Your task to perform on an android device: Open Google Image 0: 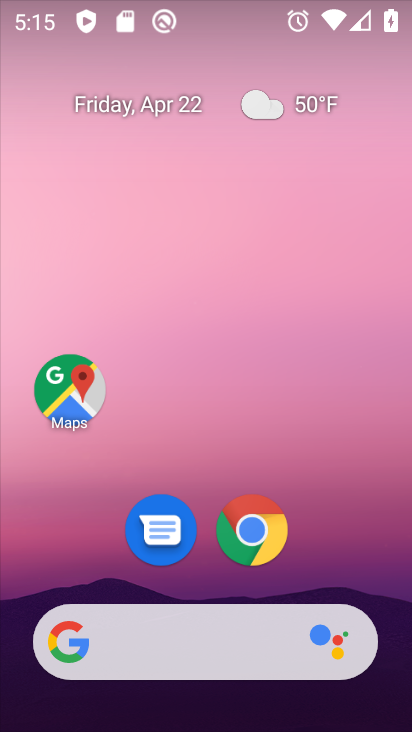
Step 0: drag from (293, 451) to (275, 126)
Your task to perform on an android device: Open Google Image 1: 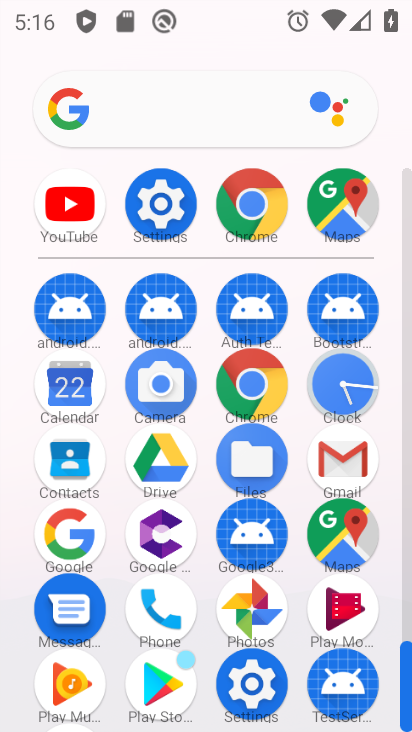
Step 1: click (62, 529)
Your task to perform on an android device: Open Google Image 2: 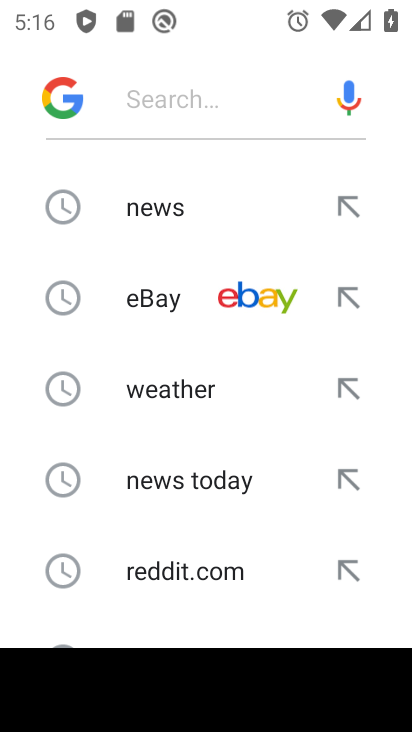
Step 2: task complete